Your task to perform on an android device: open the mobile data screen to see how much data has been used Image 0: 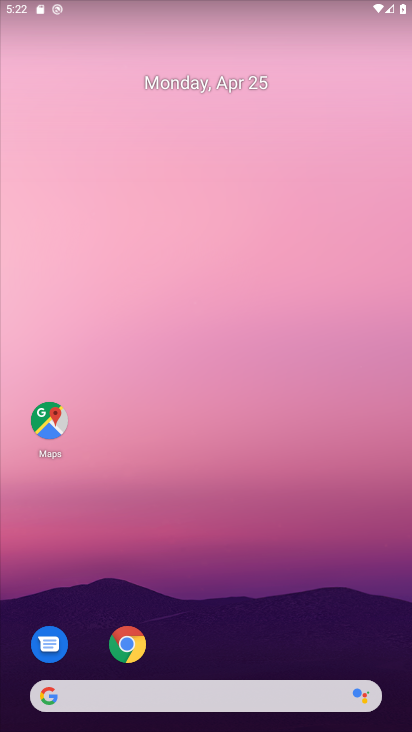
Step 0: drag from (263, 607) to (206, 32)
Your task to perform on an android device: open the mobile data screen to see how much data has been used Image 1: 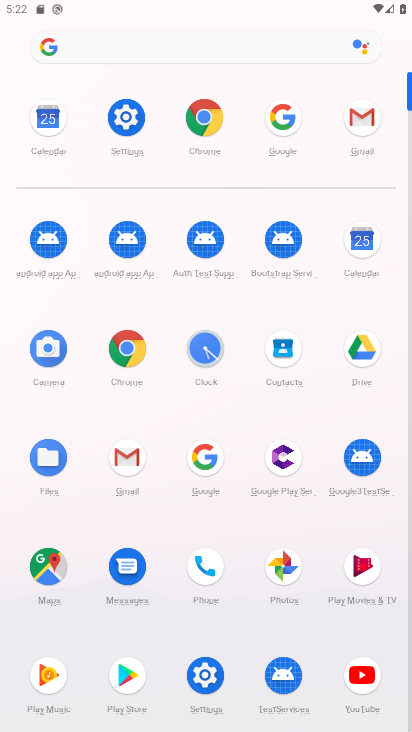
Step 1: click (129, 157)
Your task to perform on an android device: open the mobile data screen to see how much data has been used Image 2: 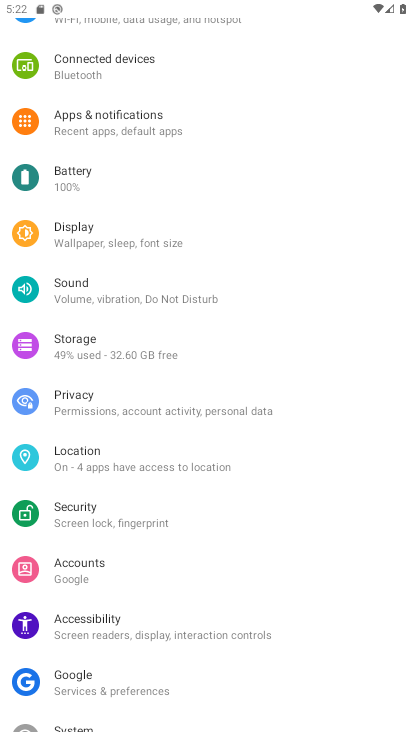
Step 2: click (208, 23)
Your task to perform on an android device: open the mobile data screen to see how much data has been used Image 3: 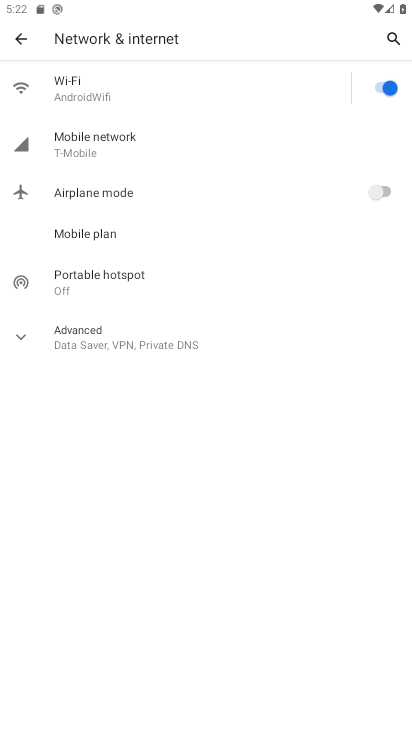
Step 3: click (165, 142)
Your task to perform on an android device: open the mobile data screen to see how much data has been used Image 4: 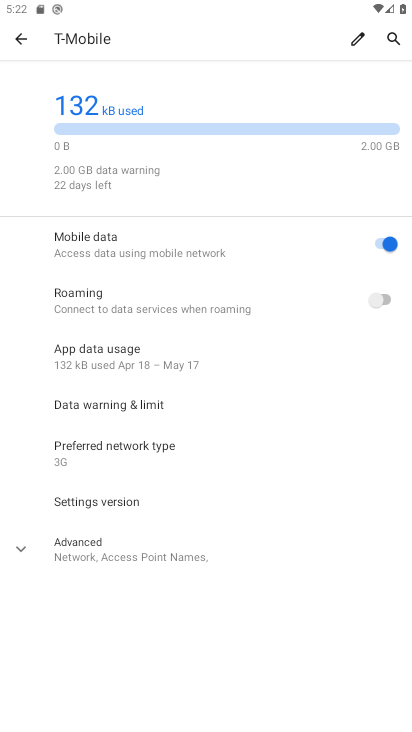
Step 4: task complete